Your task to perform on an android device: open app "Booking.com: Hotels and more" (install if not already installed), go to login, and select forgot password Image 0: 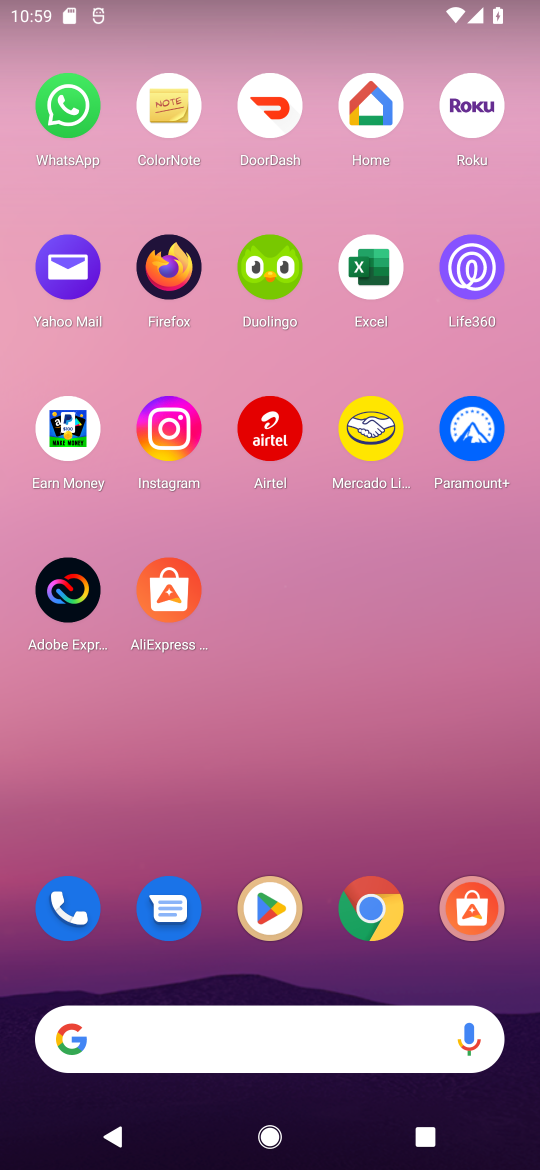
Step 0: click (290, 902)
Your task to perform on an android device: open app "Booking.com: Hotels and more" (install if not already installed), go to login, and select forgot password Image 1: 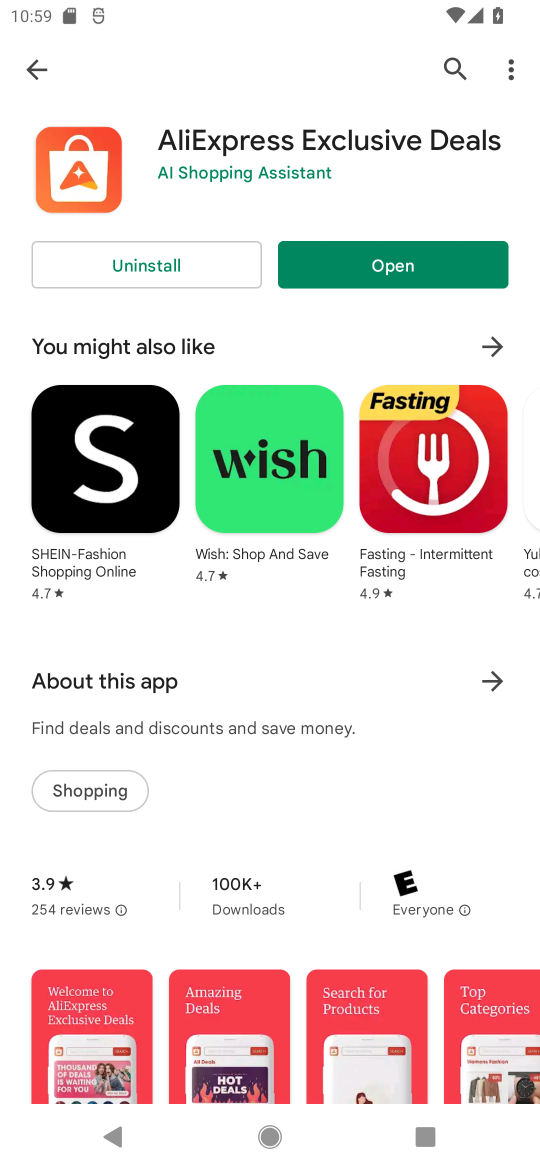
Step 1: click (30, 67)
Your task to perform on an android device: open app "Booking.com: Hotels and more" (install if not already installed), go to login, and select forgot password Image 2: 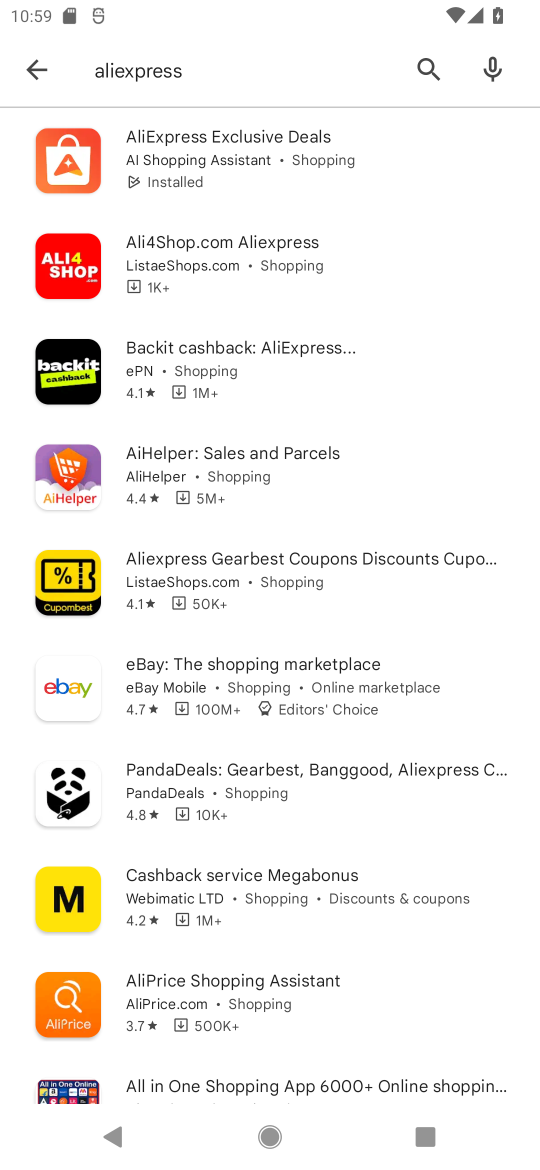
Step 2: click (418, 75)
Your task to perform on an android device: open app "Booking.com: Hotels and more" (install if not already installed), go to login, and select forgot password Image 3: 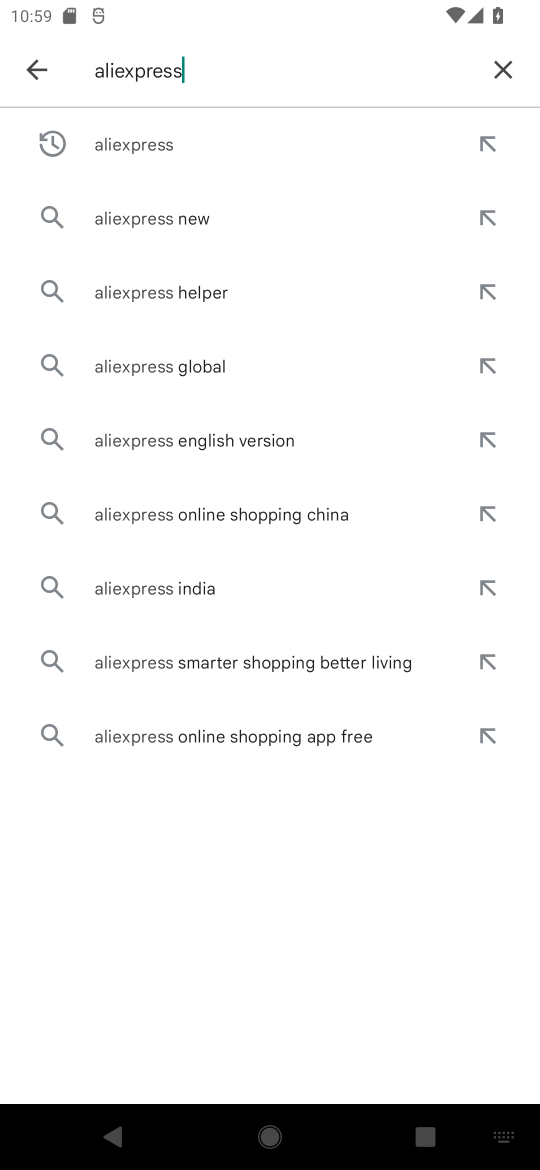
Step 3: click (505, 67)
Your task to perform on an android device: open app "Booking.com: Hotels and more" (install if not already installed), go to login, and select forgot password Image 4: 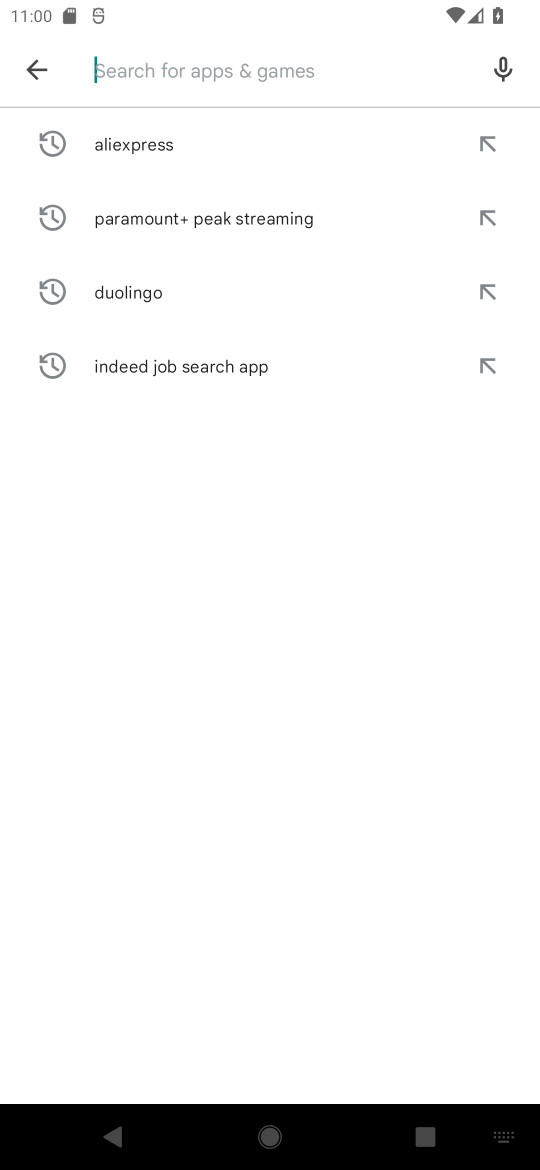
Step 4: type "Booking.com: Hotels and more"
Your task to perform on an android device: open app "Booking.com: Hotels and more" (install if not already installed), go to login, and select forgot password Image 5: 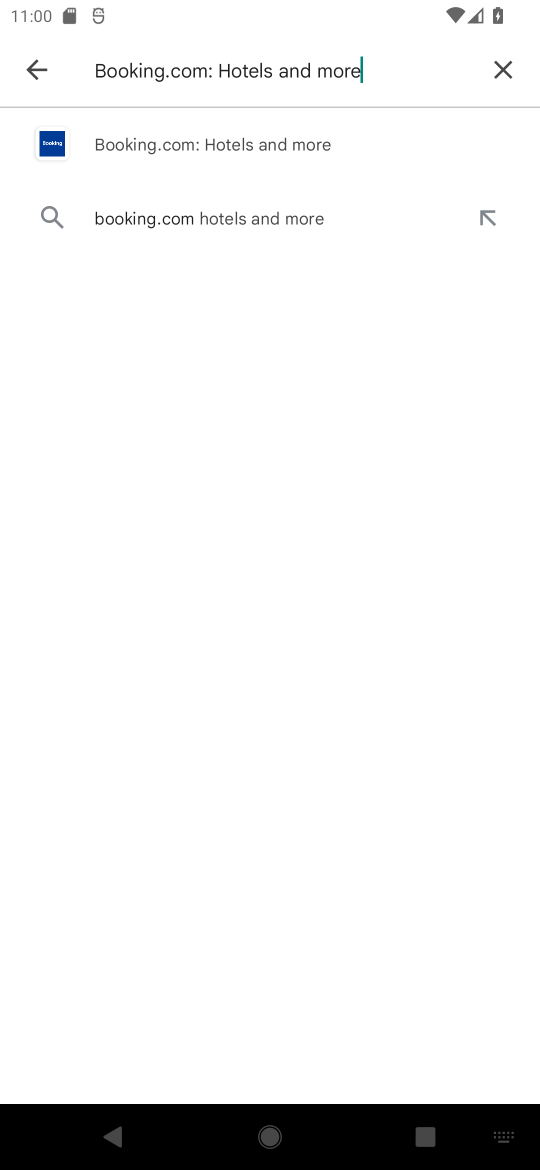
Step 5: click (276, 145)
Your task to perform on an android device: open app "Booking.com: Hotels and more" (install if not already installed), go to login, and select forgot password Image 6: 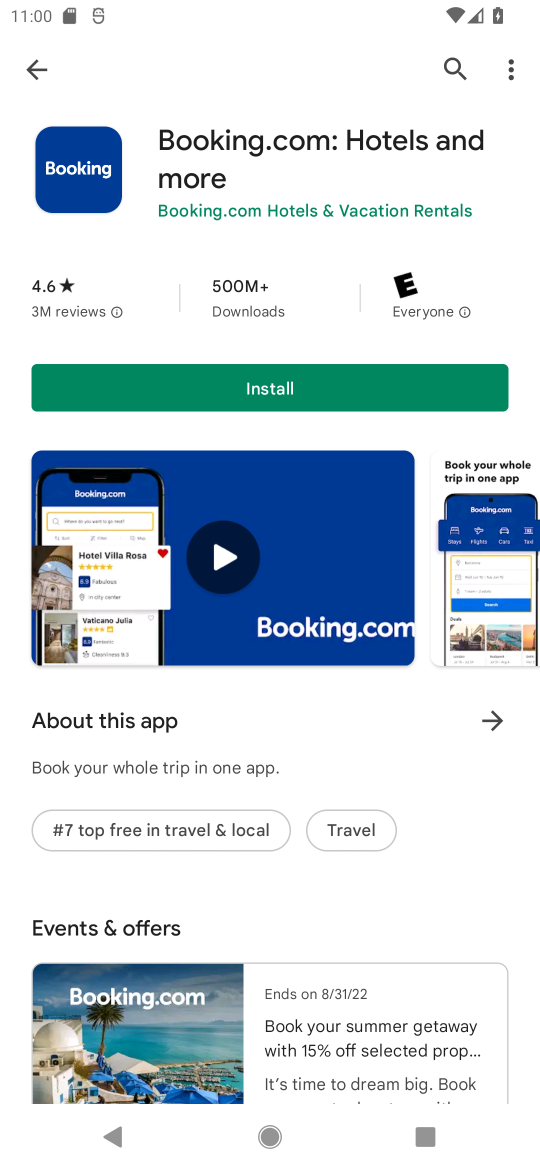
Step 6: click (173, 398)
Your task to perform on an android device: open app "Booking.com: Hotels and more" (install if not already installed), go to login, and select forgot password Image 7: 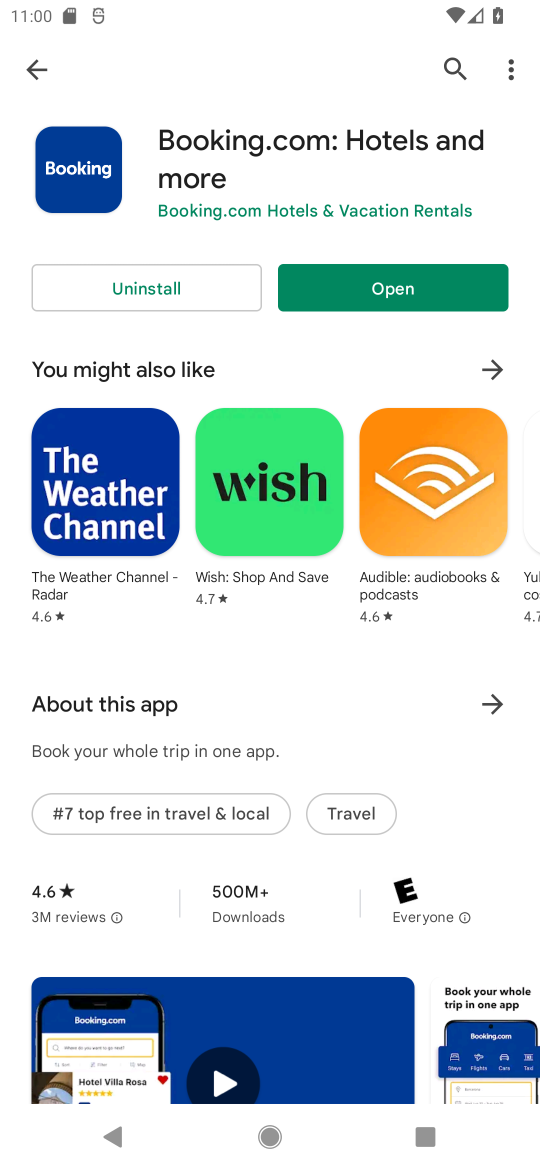
Step 7: click (354, 266)
Your task to perform on an android device: open app "Booking.com: Hotels and more" (install if not already installed), go to login, and select forgot password Image 8: 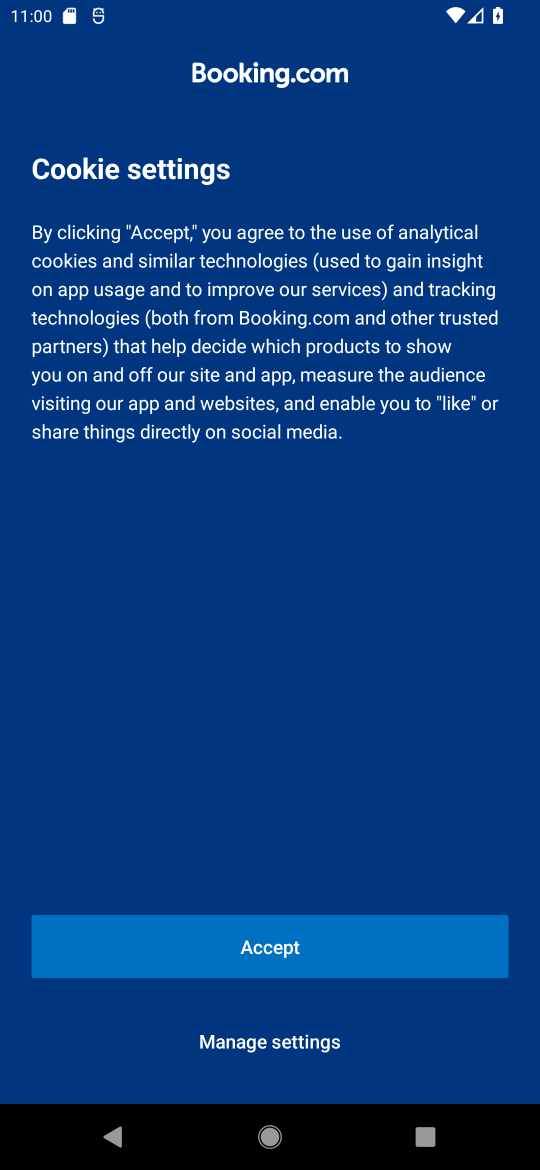
Step 8: click (268, 937)
Your task to perform on an android device: open app "Booking.com: Hotels and more" (install if not already installed), go to login, and select forgot password Image 9: 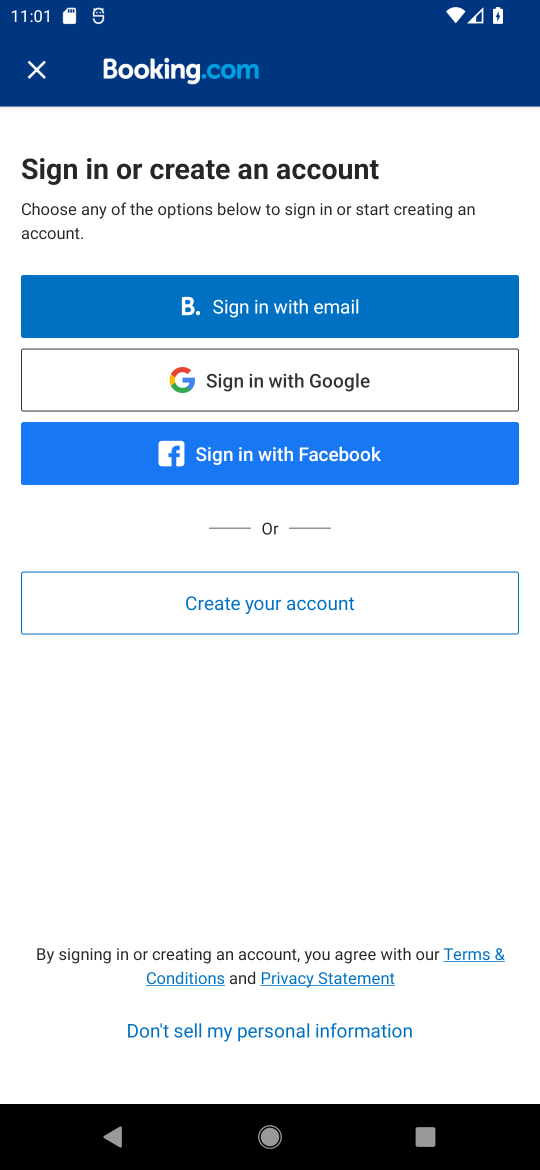
Step 9: task complete